Your task to perform on an android device: Who is the president of the United States? Image 0: 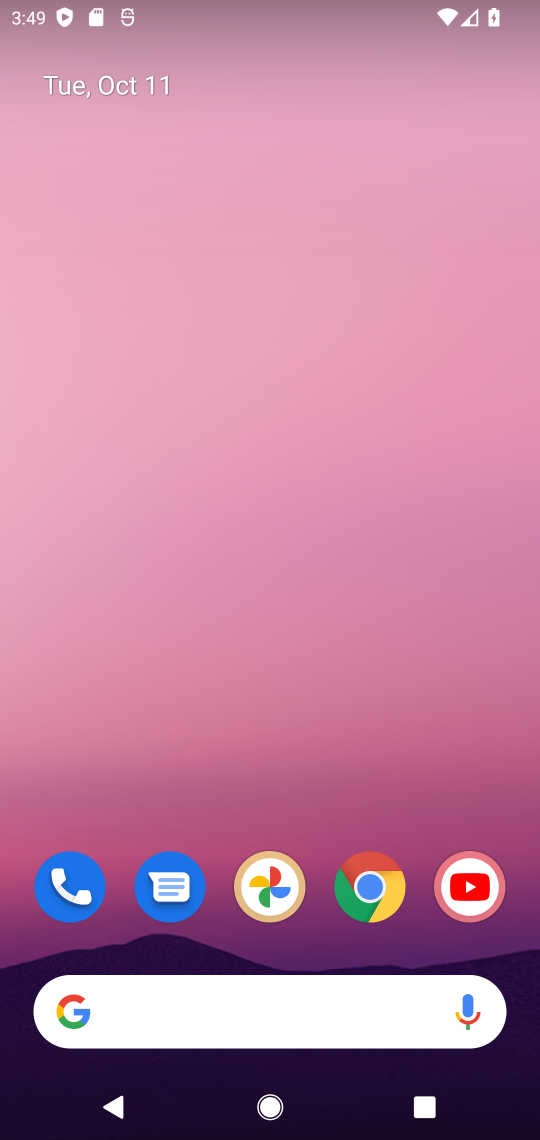
Step 0: click (195, 1023)
Your task to perform on an android device: Who is the president of the United States? Image 1: 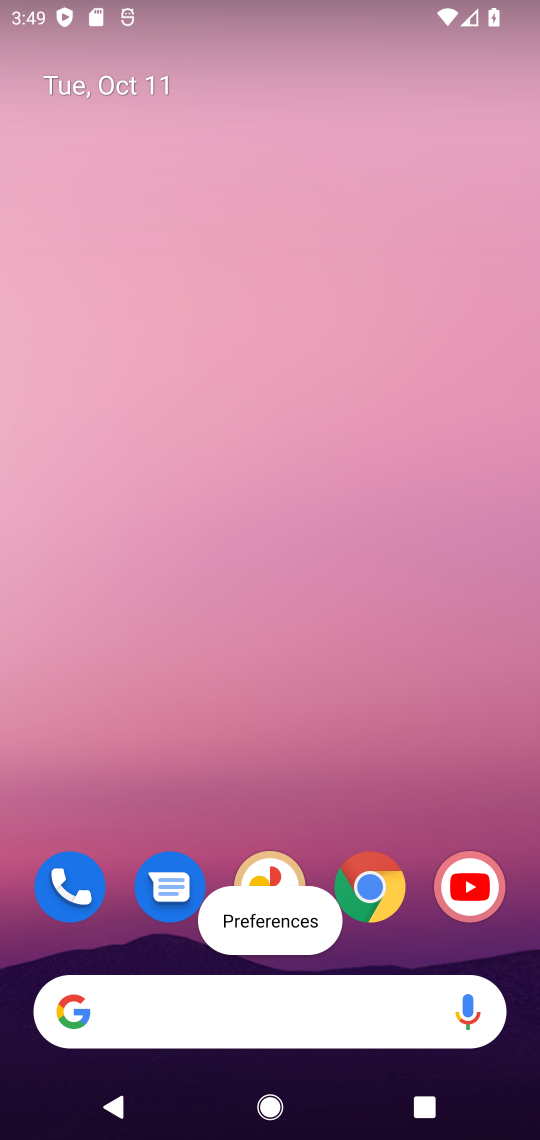
Step 1: click (382, 903)
Your task to perform on an android device: Who is the president of the United States? Image 2: 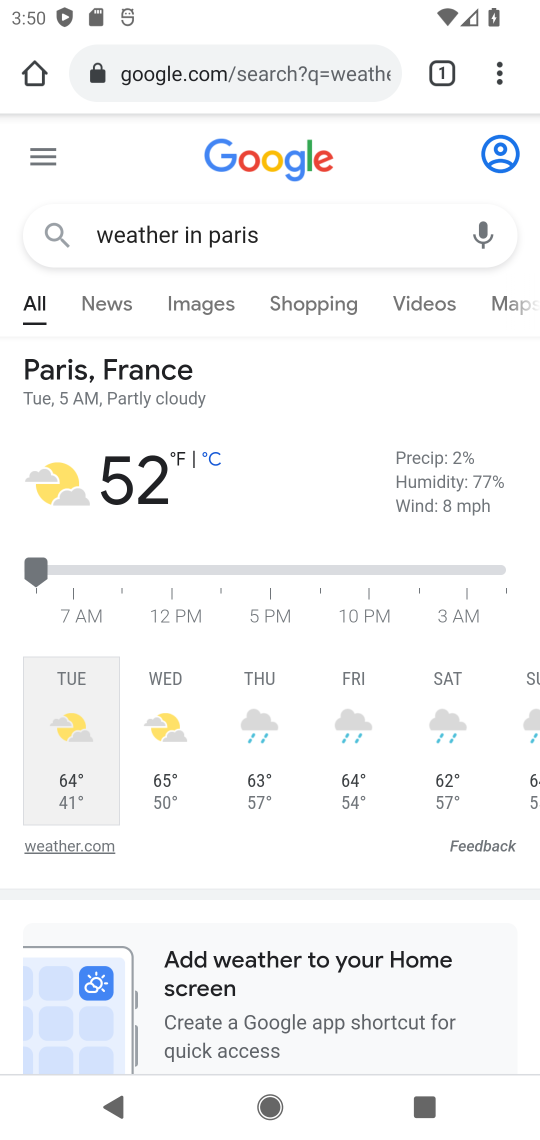
Step 2: click (291, 223)
Your task to perform on an android device: Who is the president of the United States? Image 3: 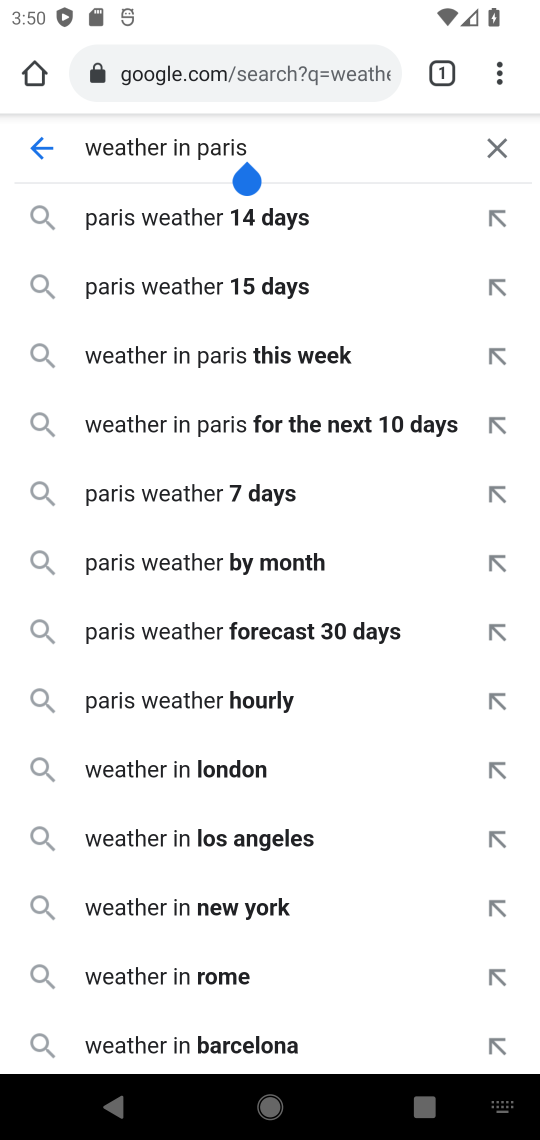
Step 3: click (492, 142)
Your task to perform on an android device: Who is the president of the United States? Image 4: 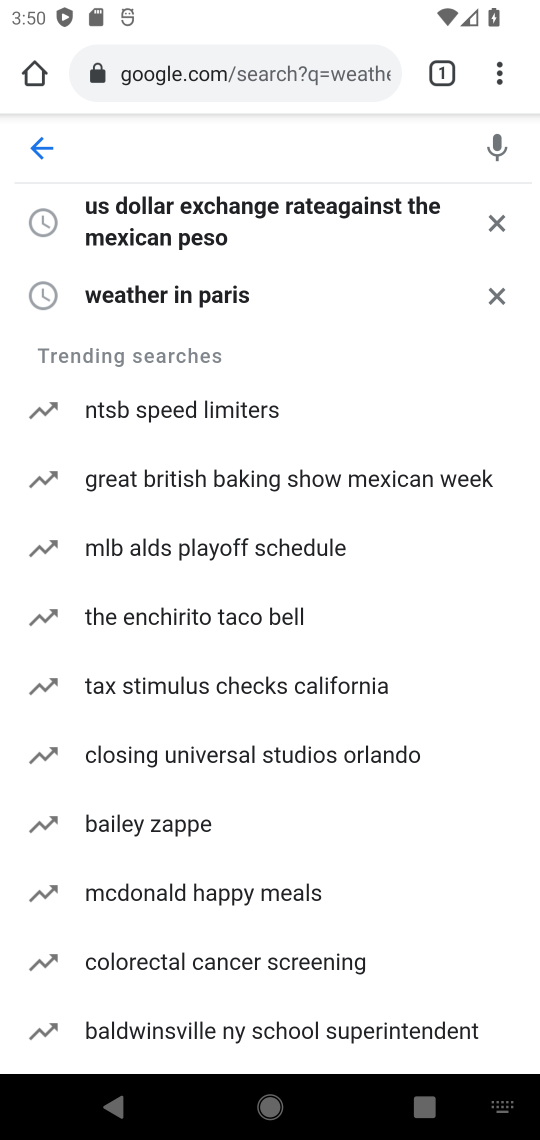
Step 4: type "president of us"
Your task to perform on an android device: Who is the president of the United States? Image 5: 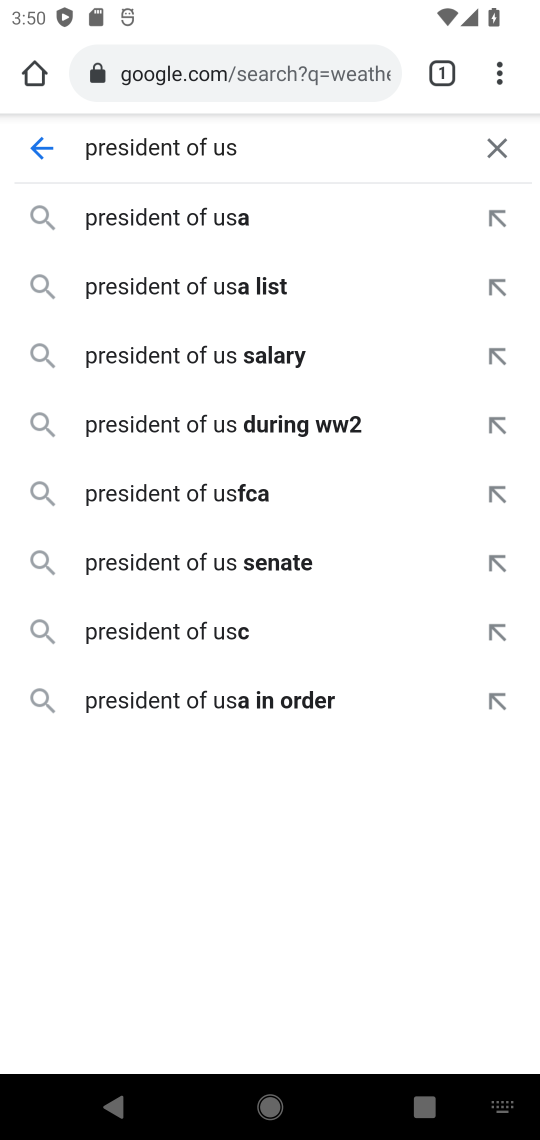
Step 5: click (189, 221)
Your task to perform on an android device: Who is the president of the United States? Image 6: 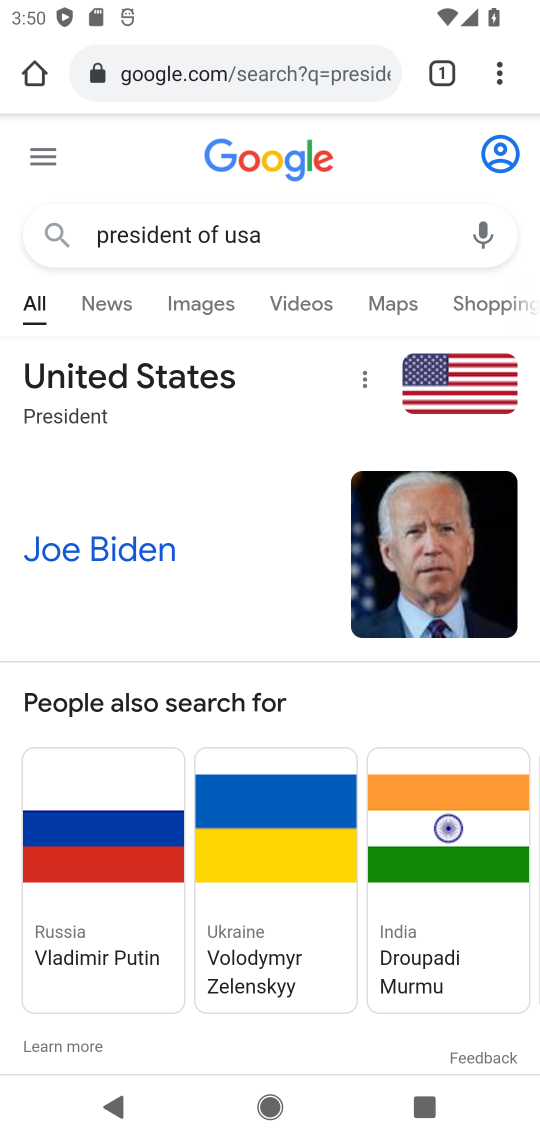
Step 6: task complete